Your task to perform on an android device: Open network settings Image 0: 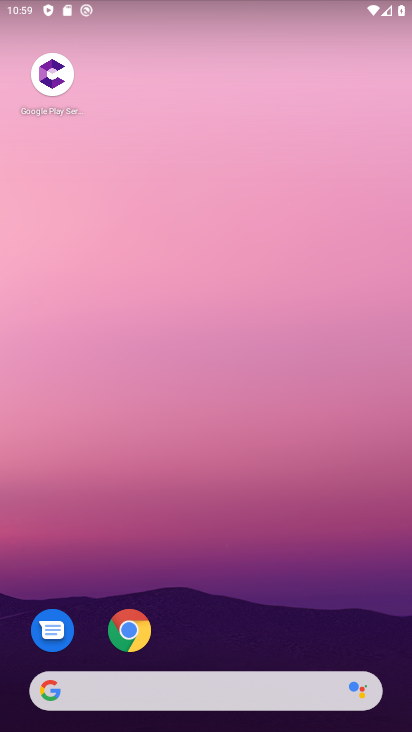
Step 0: drag from (217, 580) to (245, 115)
Your task to perform on an android device: Open network settings Image 1: 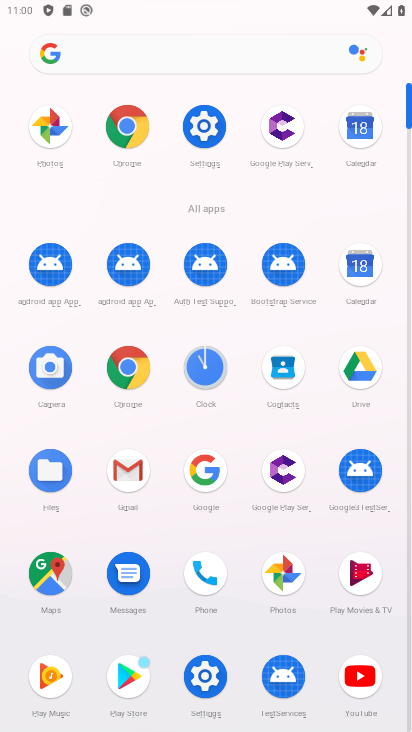
Step 1: click (203, 169)
Your task to perform on an android device: Open network settings Image 2: 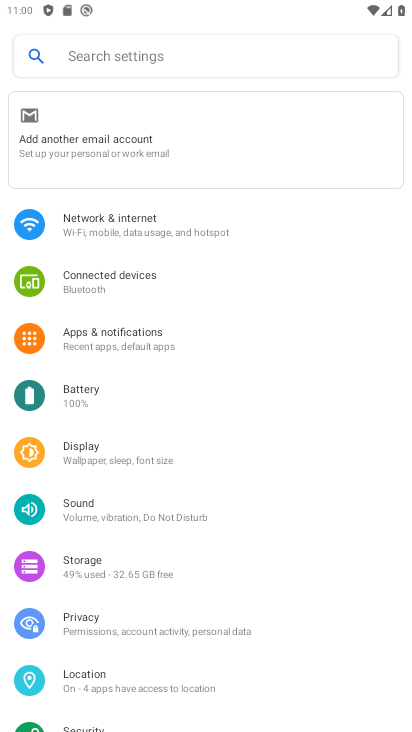
Step 2: click (174, 225)
Your task to perform on an android device: Open network settings Image 3: 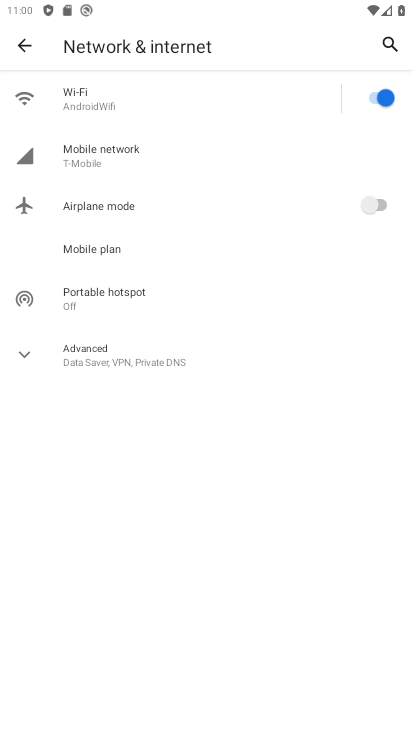
Step 3: task complete